Your task to perform on an android device: Open Android settings Image 0: 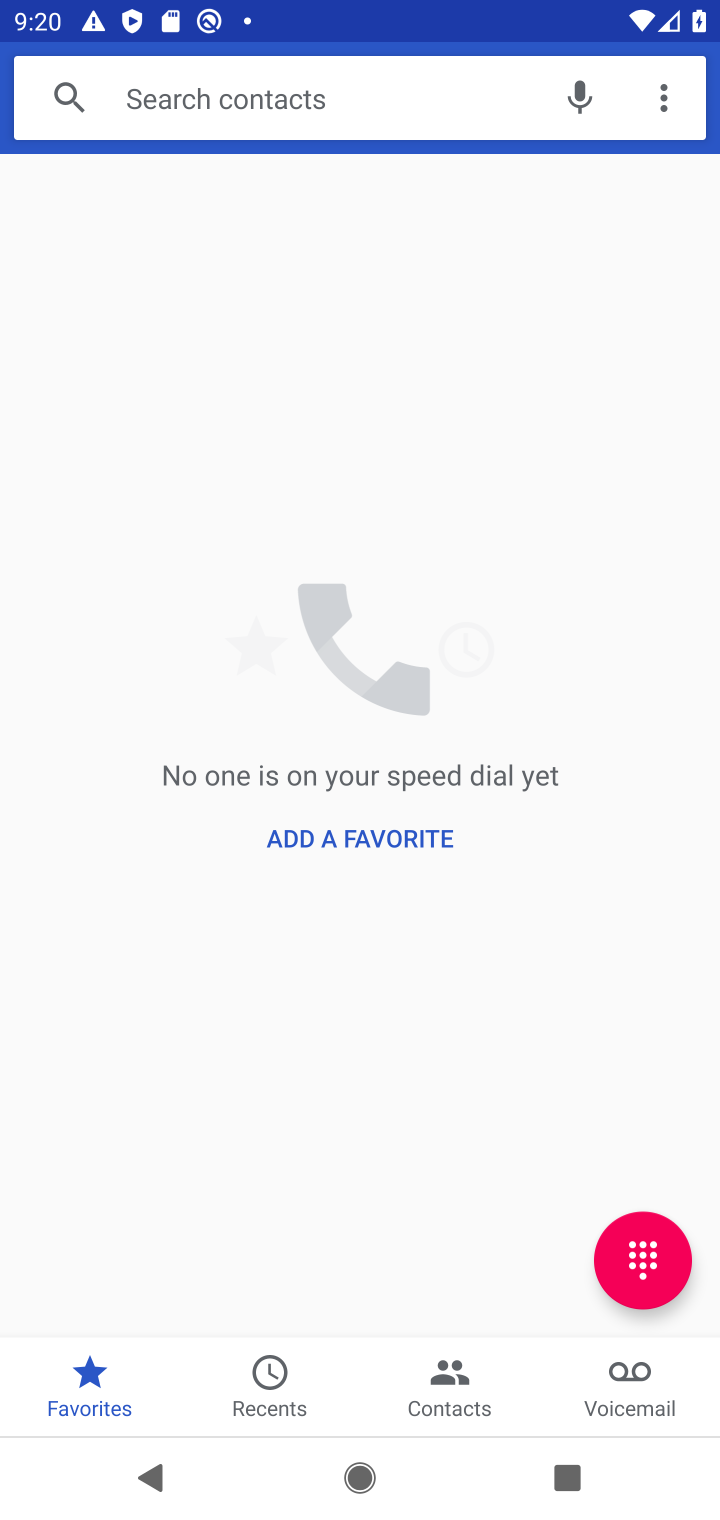
Step 0: press home button
Your task to perform on an android device: Open Android settings Image 1: 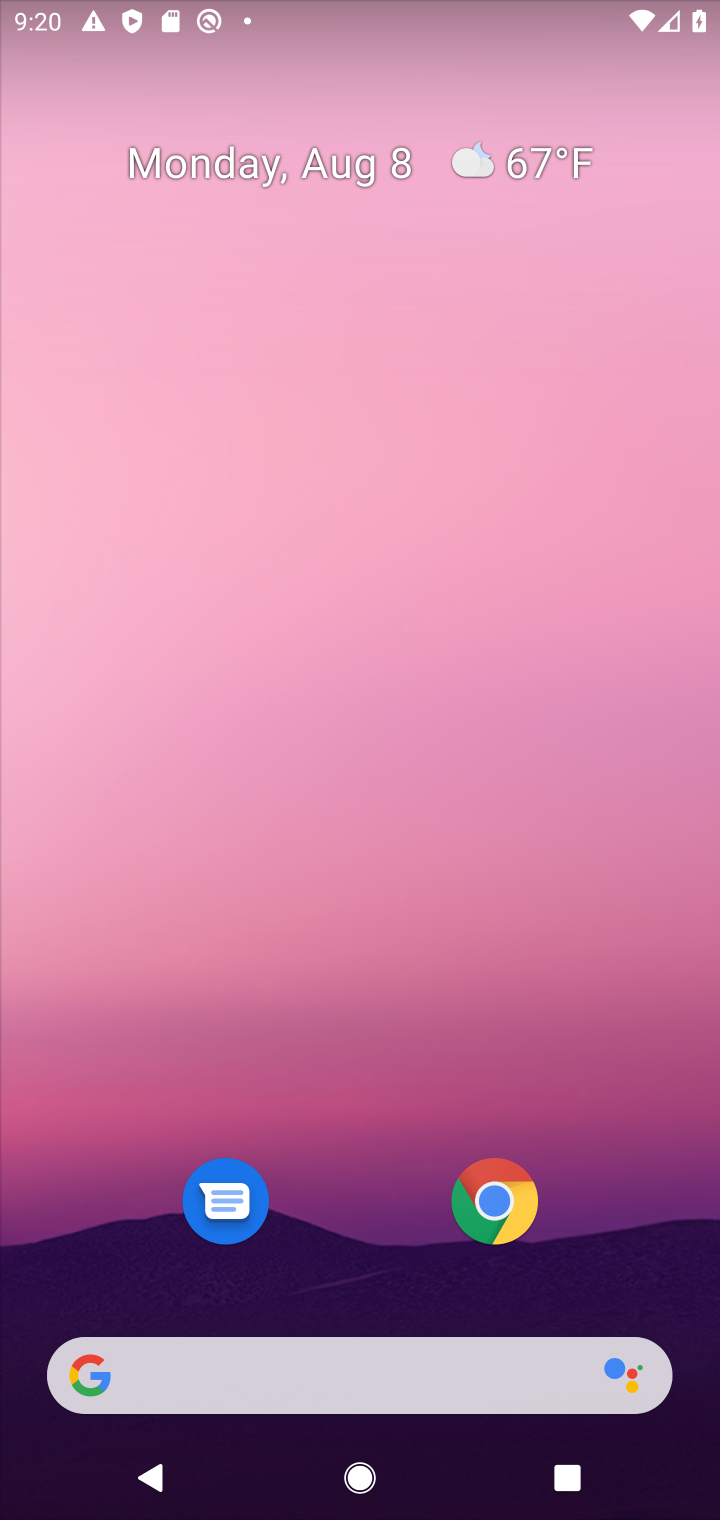
Step 1: press home button
Your task to perform on an android device: Open Android settings Image 2: 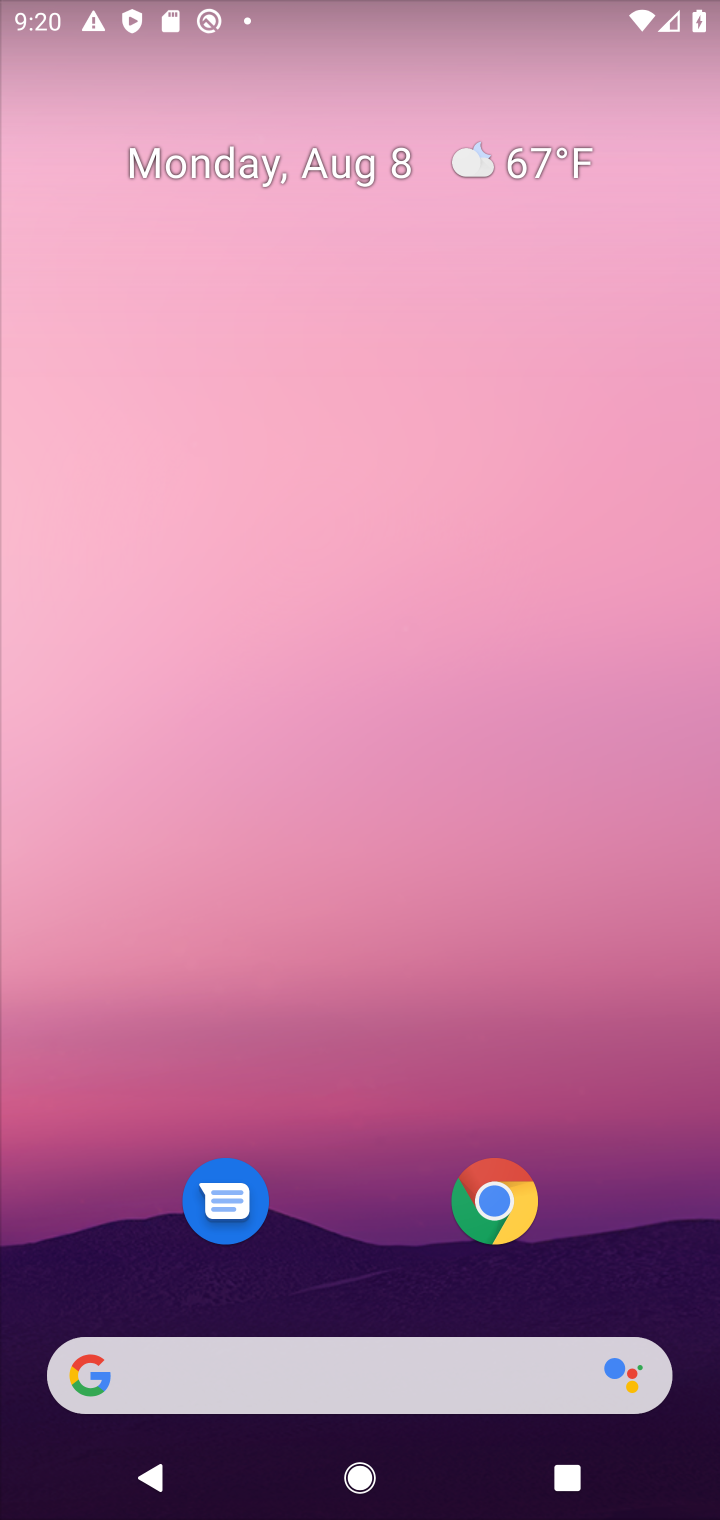
Step 2: drag from (639, 1158) to (618, 355)
Your task to perform on an android device: Open Android settings Image 3: 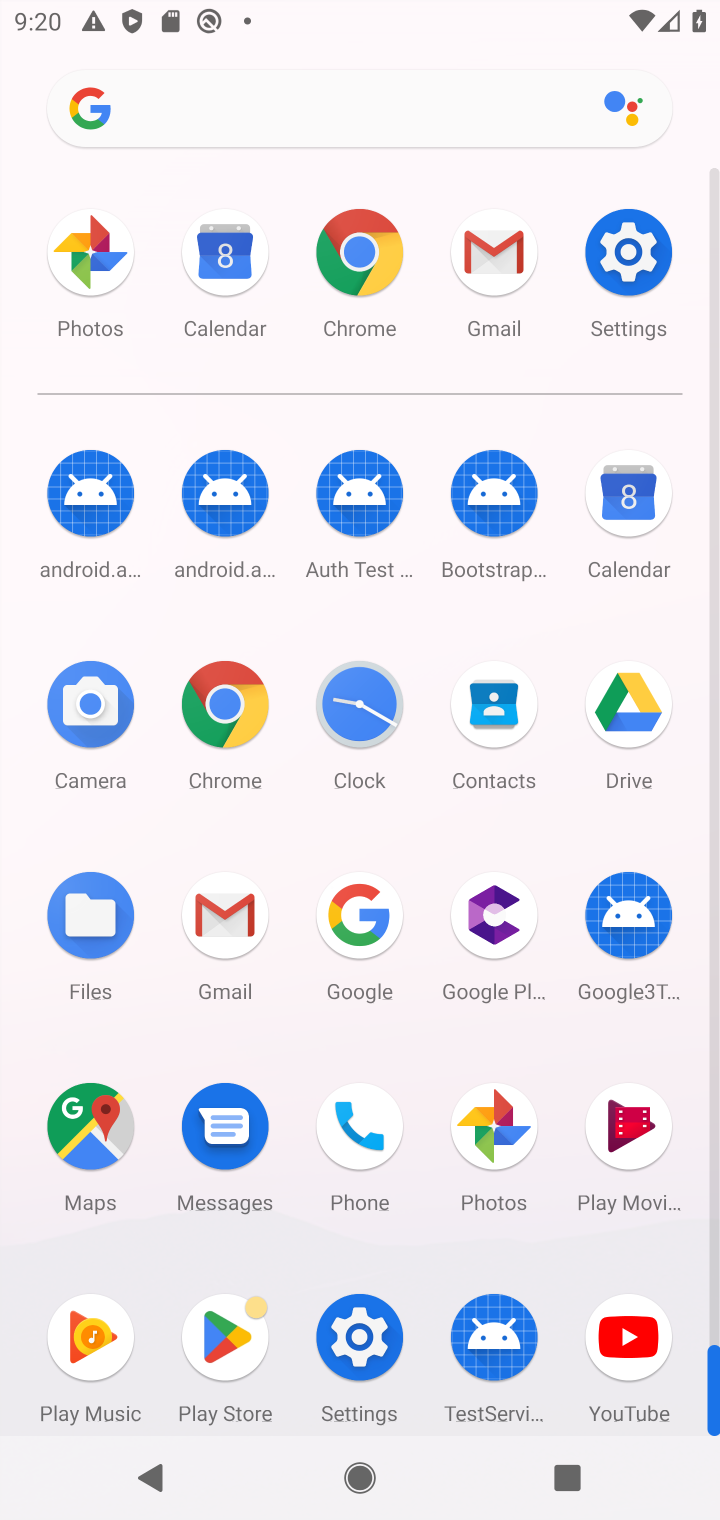
Step 3: click (630, 249)
Your task to perform on an android device: Open Android settings Image 4: 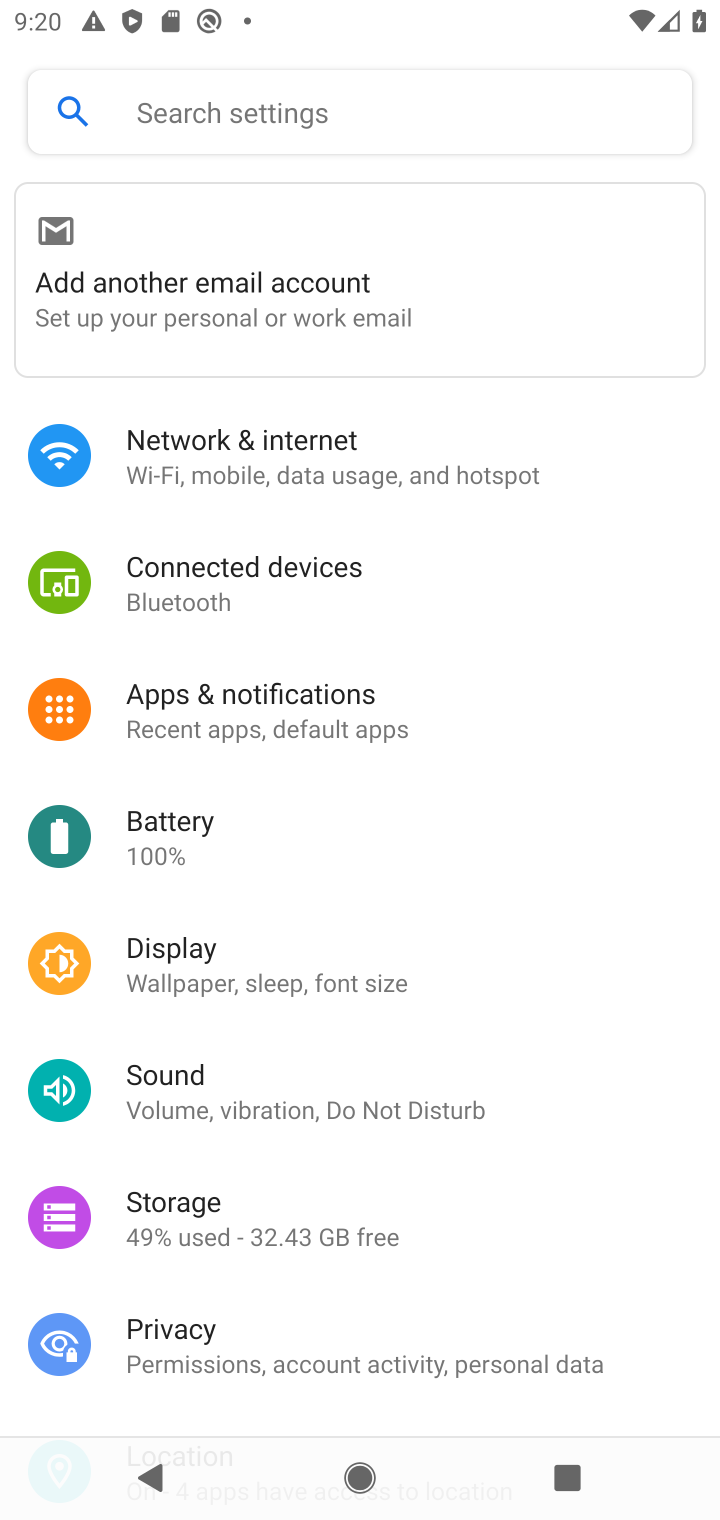
Step 4: drag from (602, 877) to (604, 602)
Your task to perform on an android device: Open Android settings Image 5: 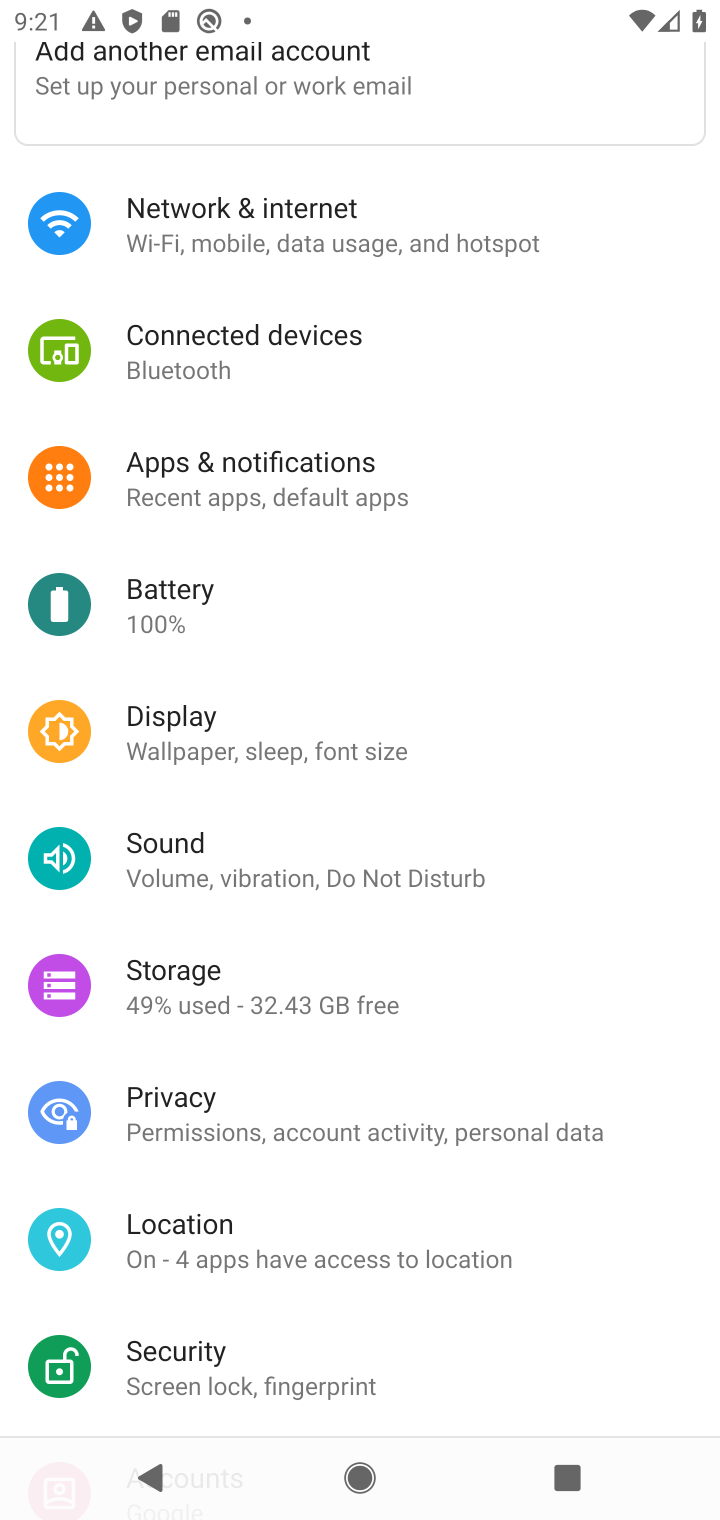
Step 5: drag from (591, 964) to (588, 571)
Your task to perform on an android device: Open Android settings Image 6: 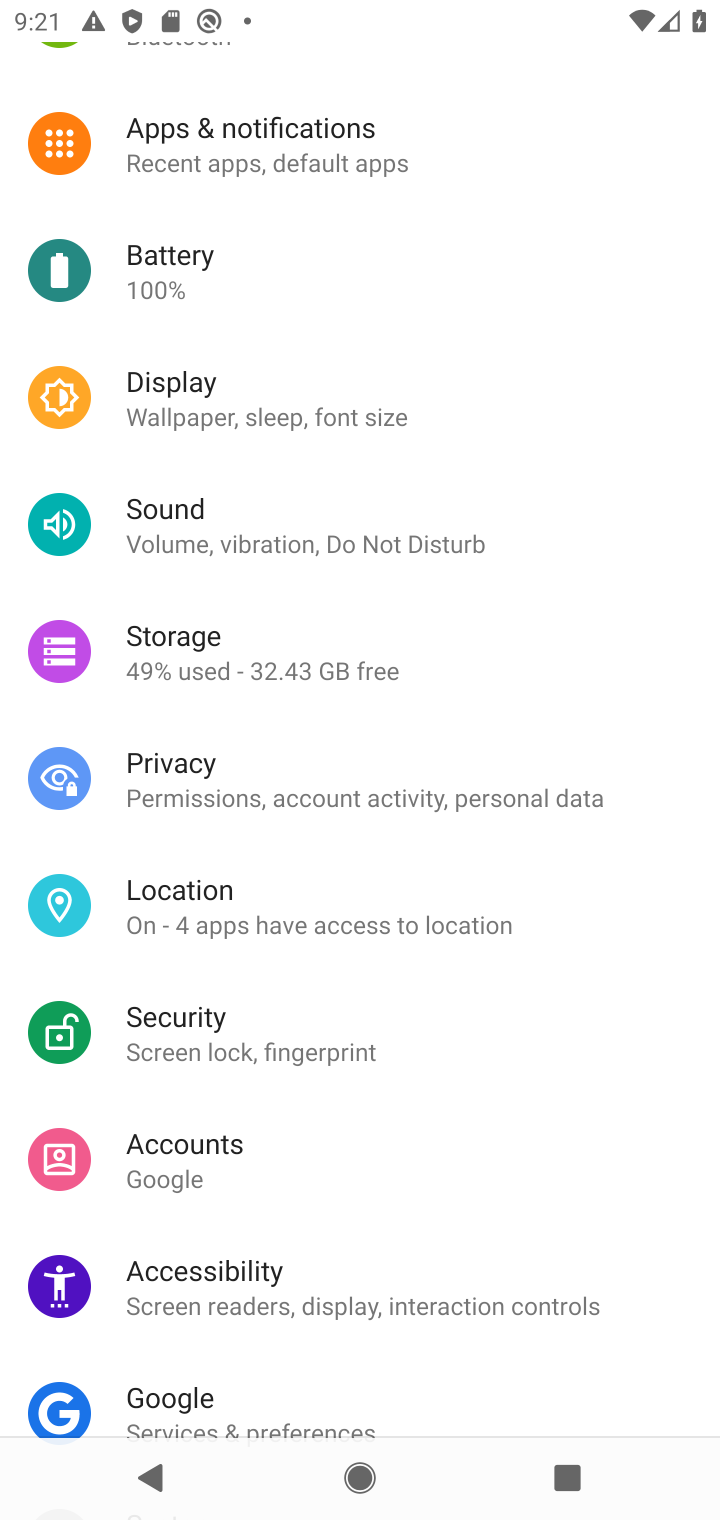
Step 6: drag from (572, 977) to (583, 661)
Your task to perform on an android device: Open Android settings Image 7: 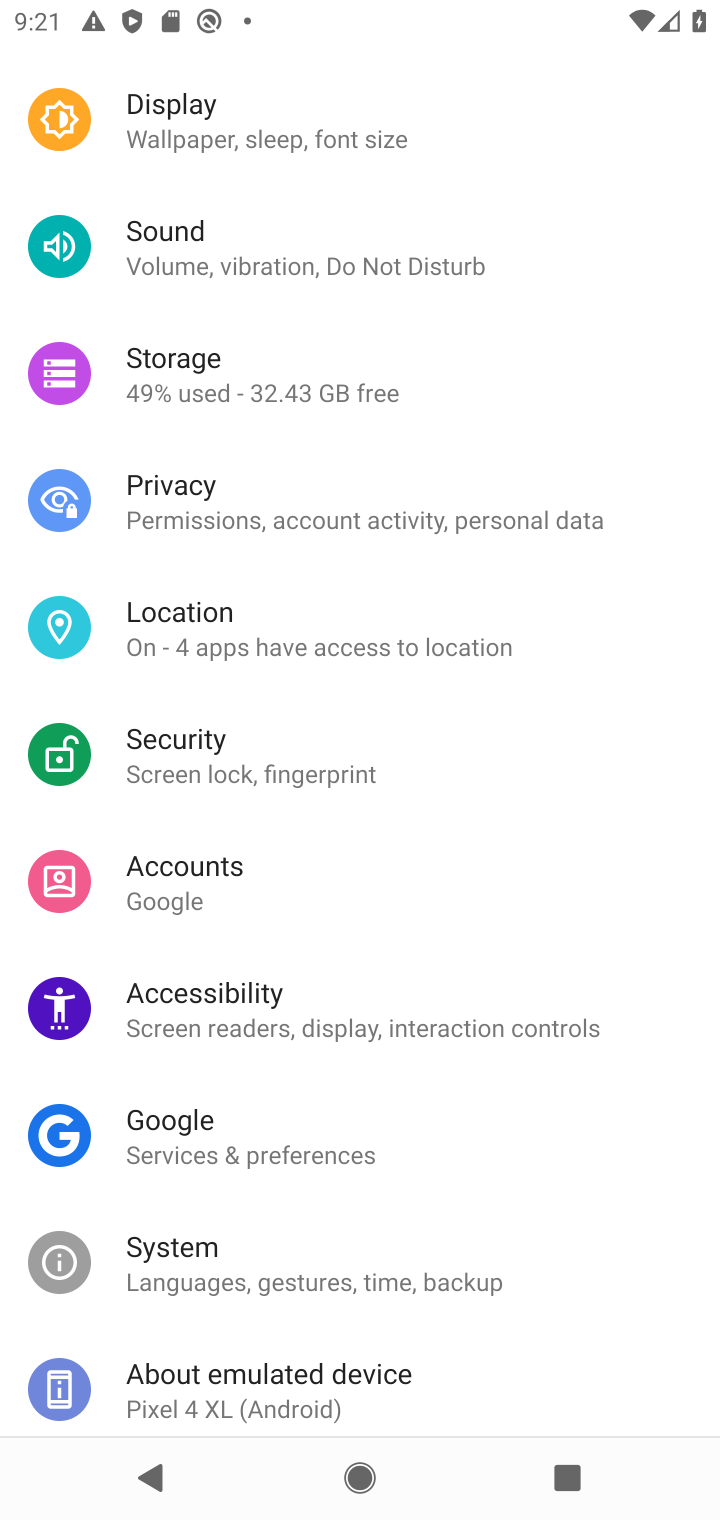
Step 7: drag from (594, 1107) to (630, 731)
Your task to perform on an android device: Open Android settings Image 8: 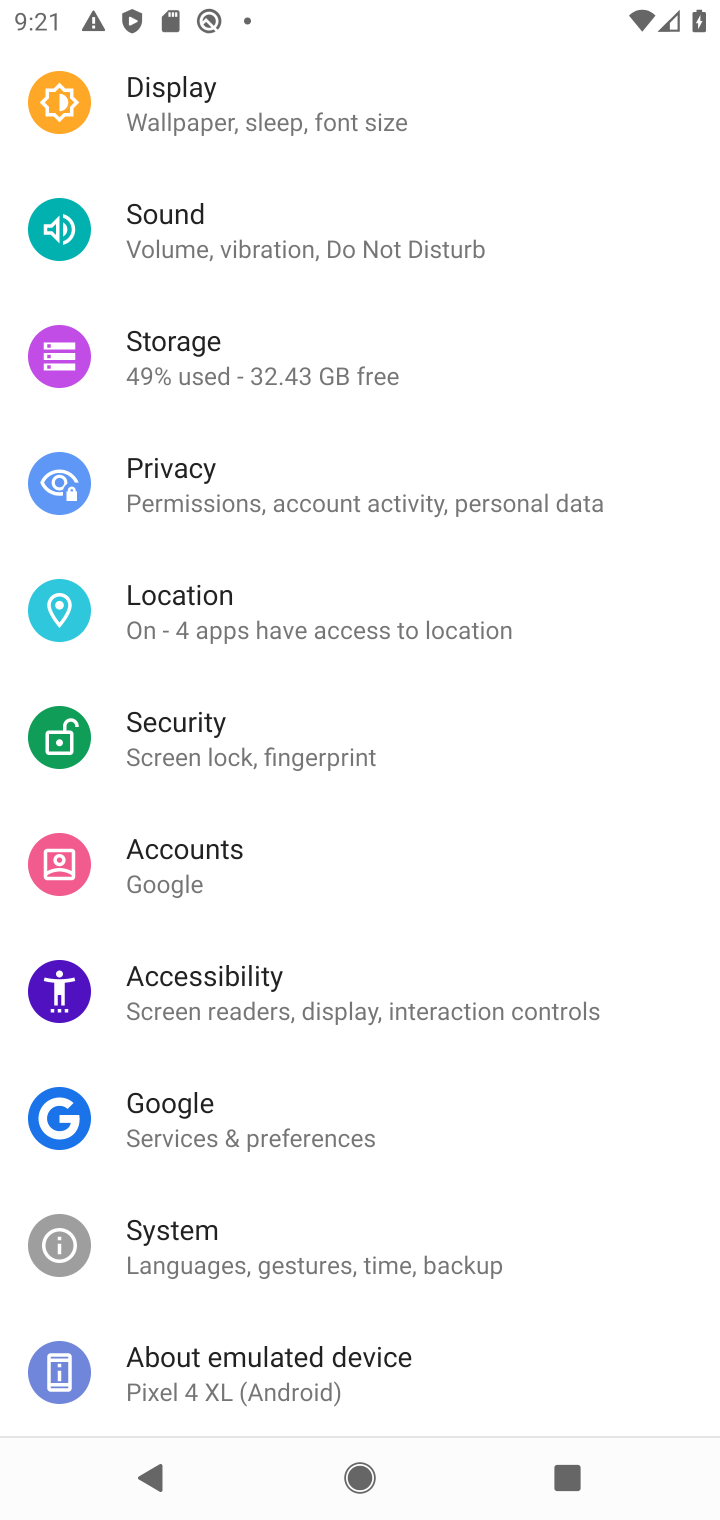
Step 8: drag from (574, 1148) to (594, 765)
Your task to perform on an android device: Open Android settings Image 9: 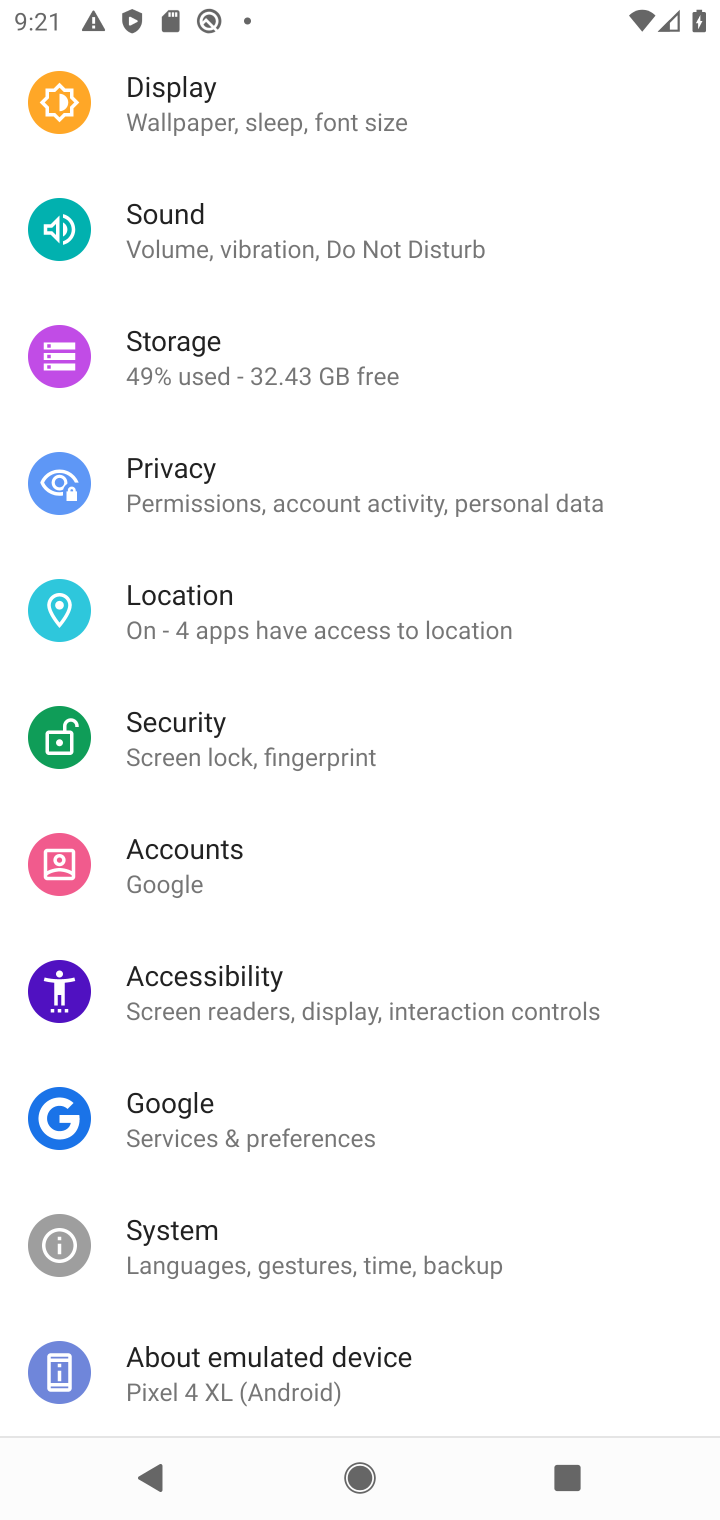
Step 9: click (503, 1230)
Your task to perform on an android device: Open Android settings Image 10: 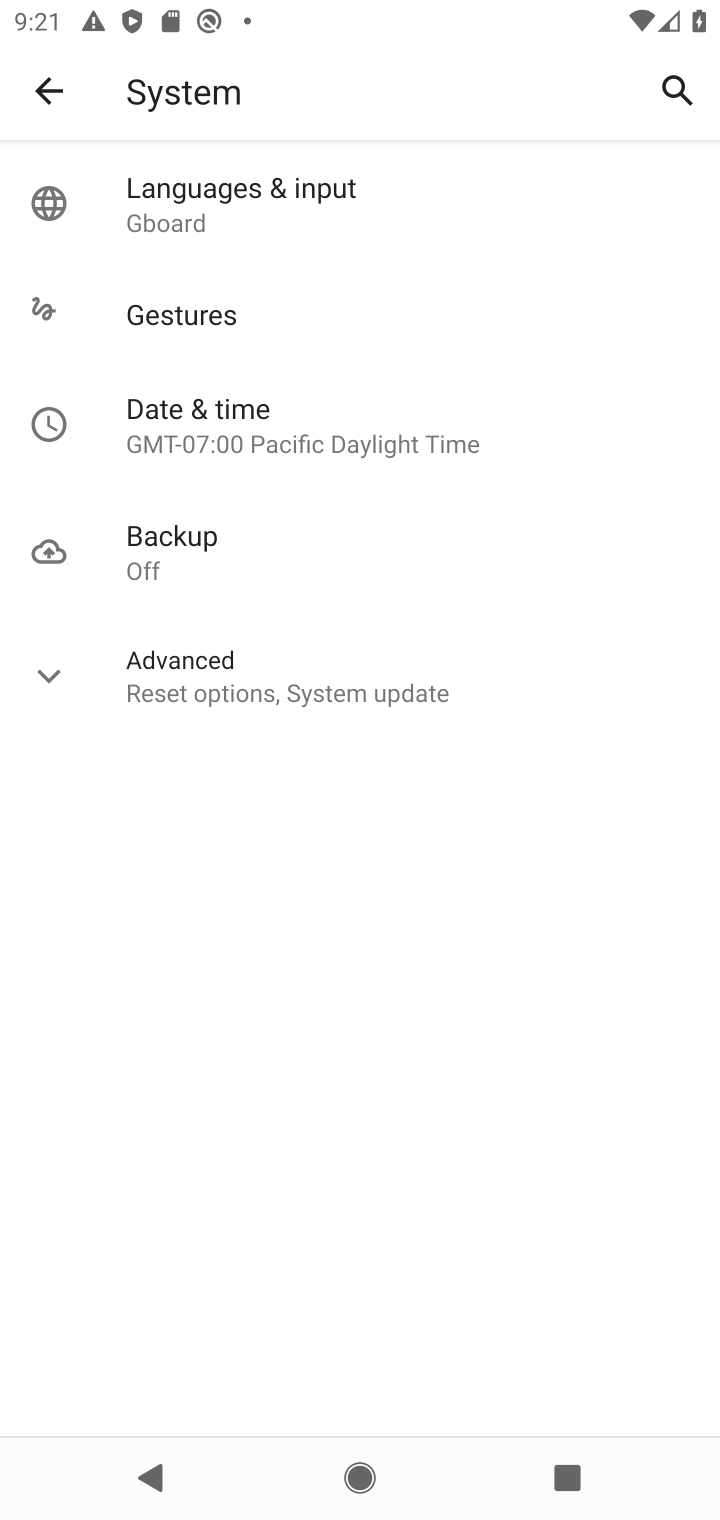
Step 10: click (419, 678)
Your task to perform on an android device: Open Android settings Image 11: 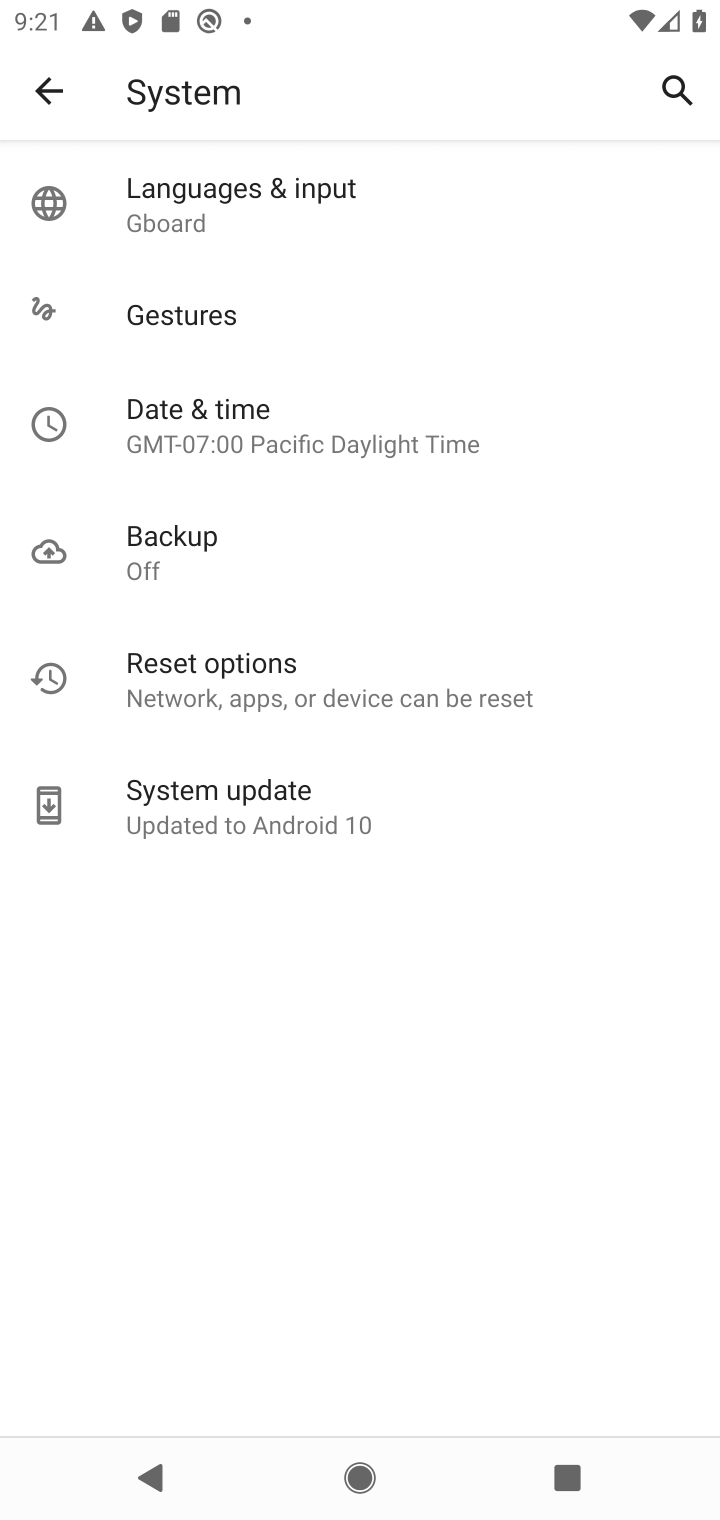
Step 11: task complete